Your task to perform on an android device: Open maps Image 0: 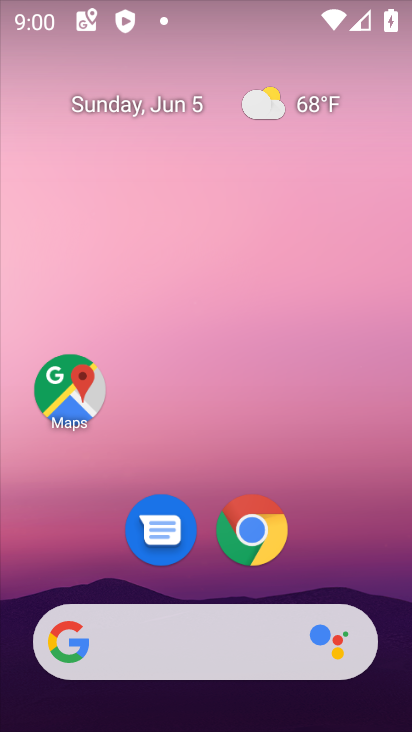
Step 0: click (74, 388)
Your task to perform on an android device: Open maps Image 1: 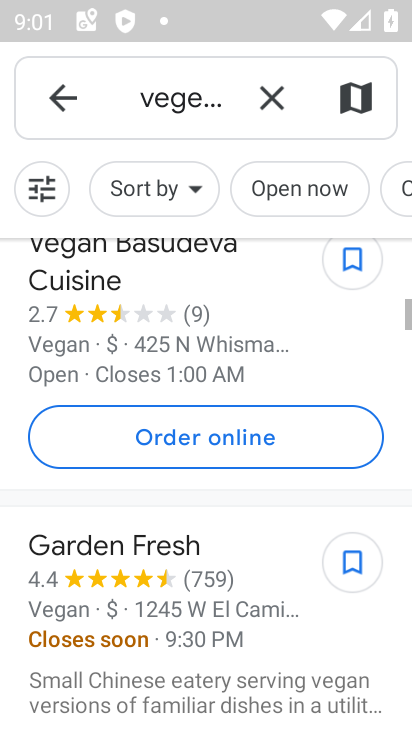
Step 1: click (268, 102)
Your task to perform on an android device: Open maps Image 2: 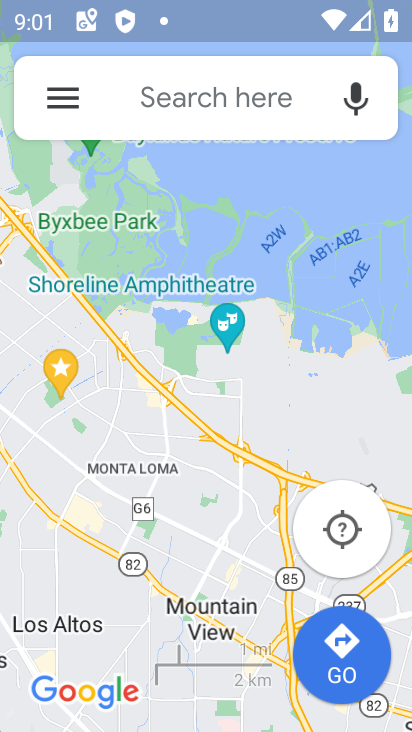
Step 2: task complete